Your task to perform on an android device: turn off notifications in google photos Image 0: 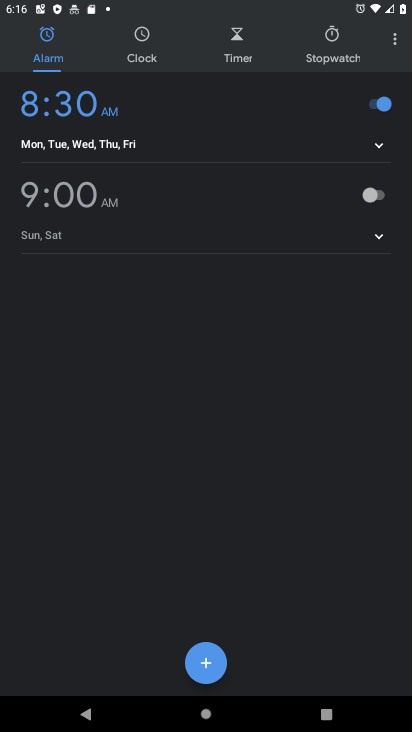
Step 0: press home button
Your task to perform on an android device: turn off notifications in google photos Image 1: 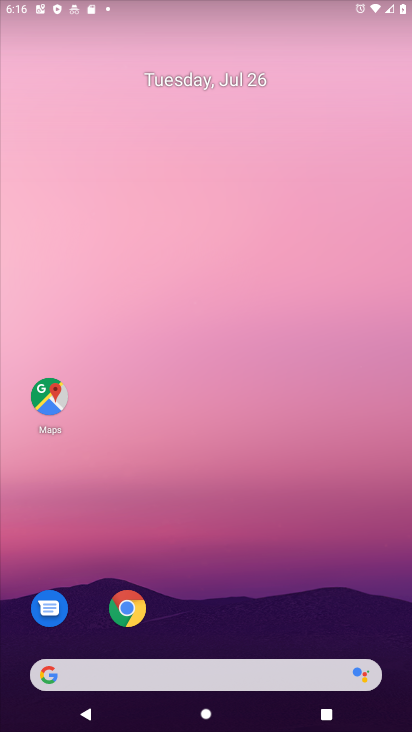
Step 1: drag from (239, 631) to (245, 110)
Your task to perform on an android device: turn off notifications in google photos Image 2: 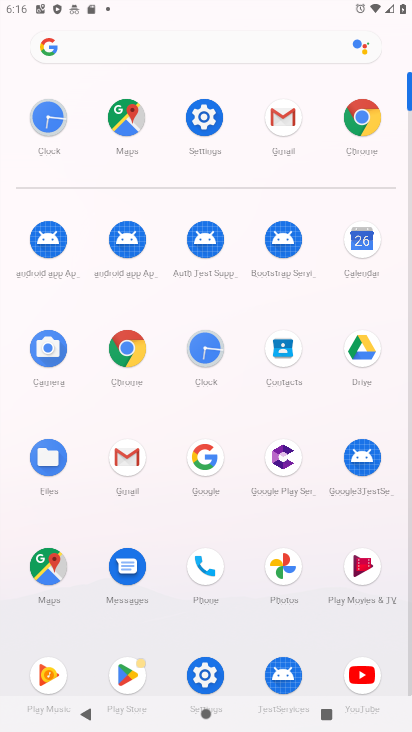
Step 2: click (277, 566)
Your task to perform on an android device: turn off notifications in google photos Image 3: 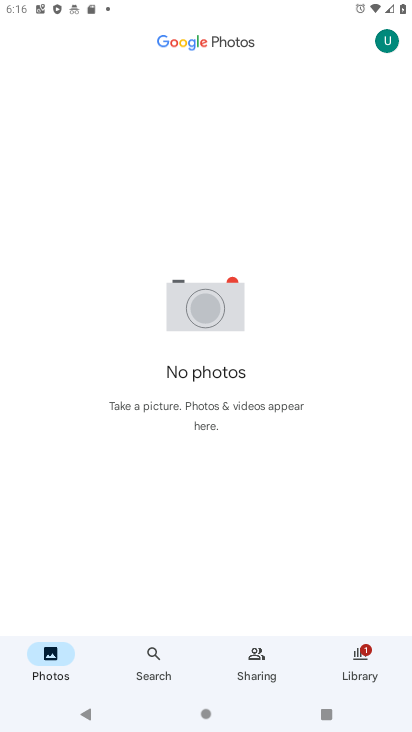
Step 3: click (395, 35)
Your task to perform on an android device: turn off notifications in google photos Image 4: 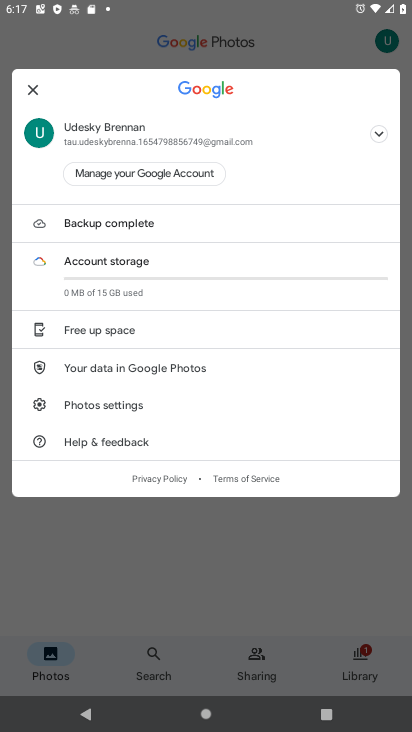
Step 4: click (102, 413)
Your task to perform on an android device: turn off notifications in google photos Image 5: 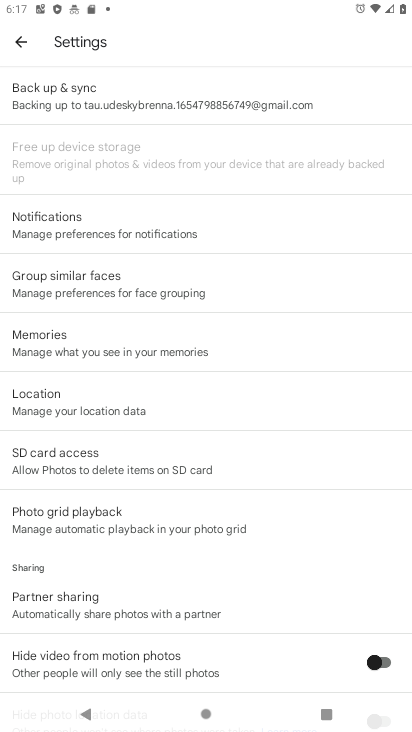
Step 5: click (62, 223)
Your task to perform on an android device: turn off notifications in google photos Image 6: 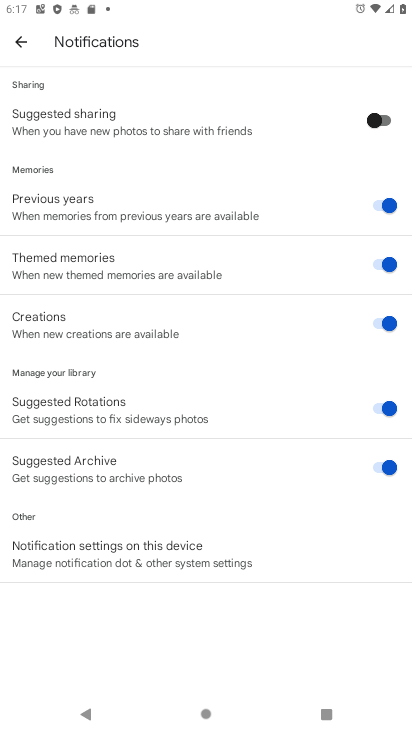
Step 6: click (377, 119)
Your task to perform on an android device: turn off notifications in google photos Image 7: 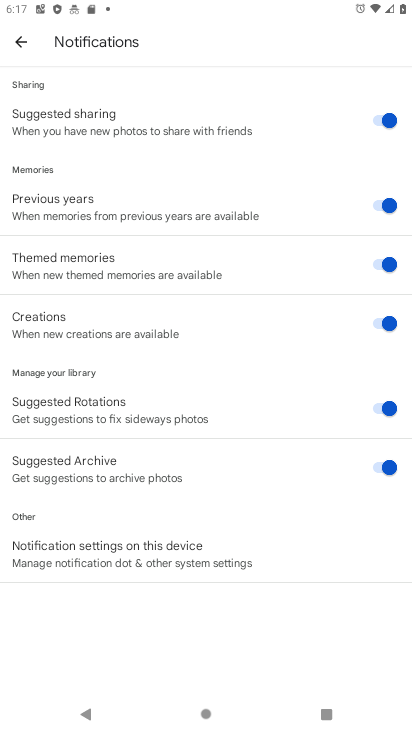
Step 7: click (389, 117)
Your task to perform on an android device: turn off notifications in google photos Image 8: 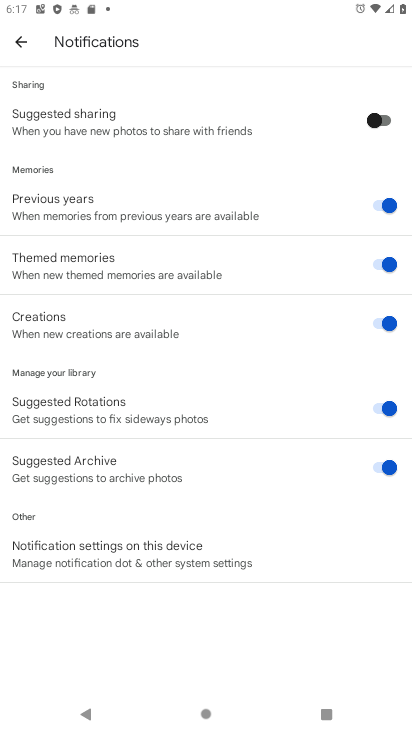
Step 8: task complete